Your task to perform on an android device: turn off smart reply in the gmail app Image 0: 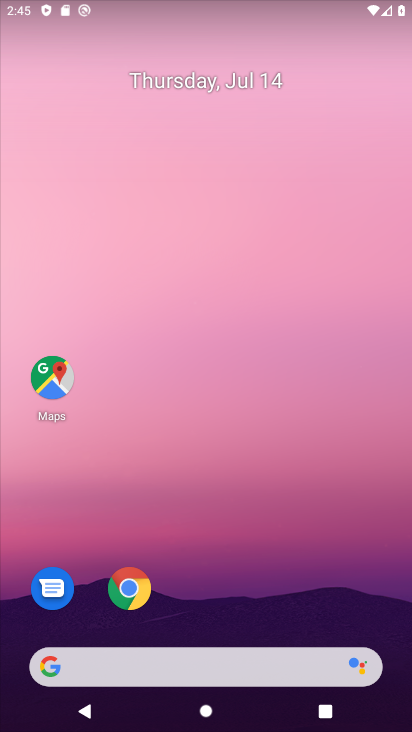
Step 0: drag from (247, 628) to (166, 117)
Your task to perform on an android device: turn off smart reply in the gmail app Image 1: 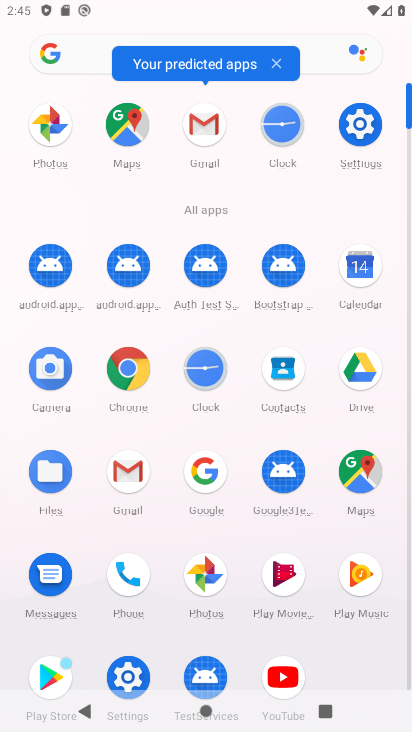
Step 1: click (203, 134)
Your task to perform on an android device: turn off smart reply in the gmail app Image 2: 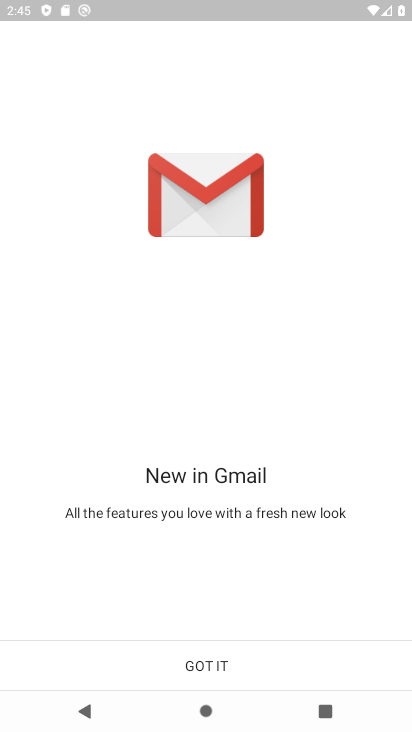
Step 2: click (226, 680)
Your task to perform on an android device: turn off smart reply in the gmail app Image 3: 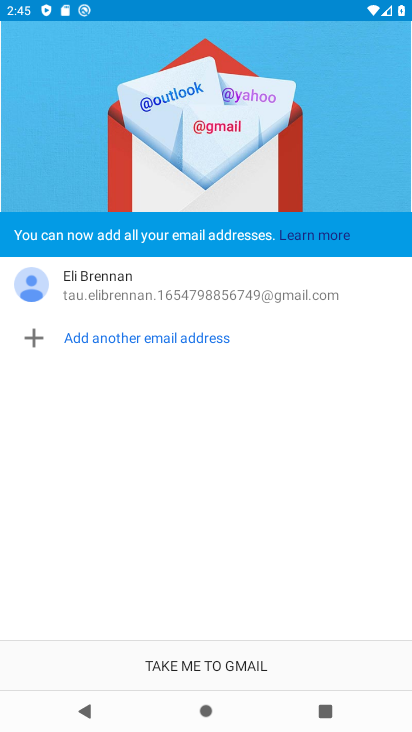
Step 3: click (225, 680)
Your task to perform on an android device: turn off smart reply in the gmail app Image 4: 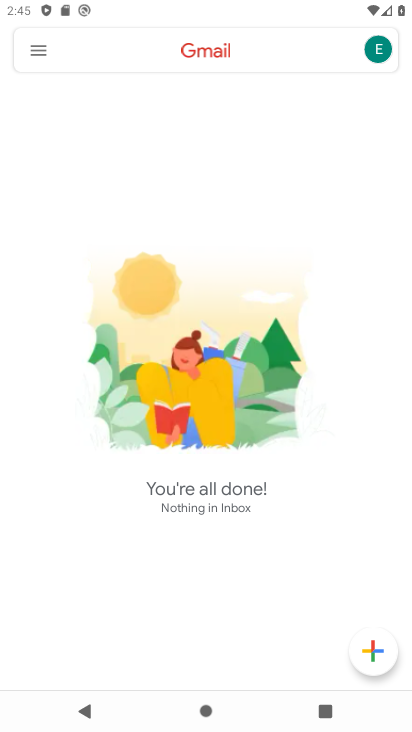
Step 4: click (39, 47)
Your task to perform on an android device: turn off smart reply in the gmail app Image 5: 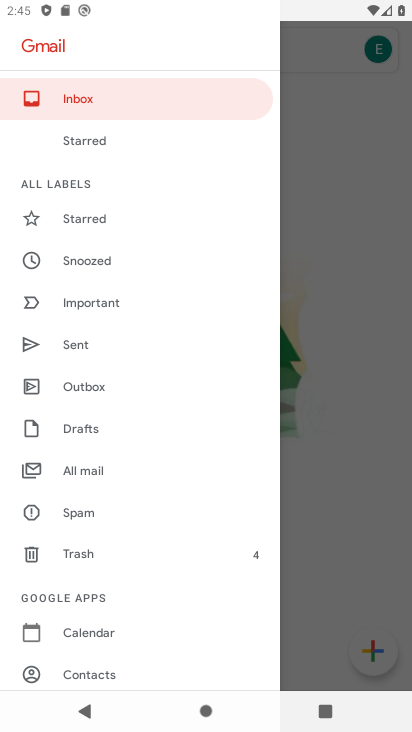
Step 5: drag from (177, 665) to (110, 138)
Your task to perform on an android device: turn off smart reply in the gmail app Image 6: 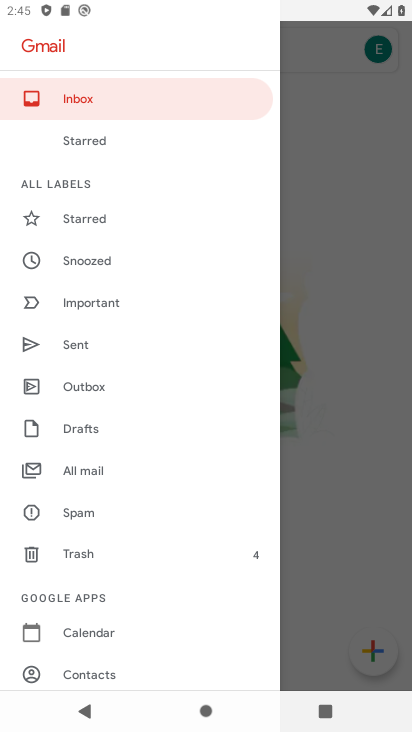
Step 6: drag from (108, 646) to (110, 276)
Your task to perform on an android device: turn off smart reply in the gmail app Image 7: 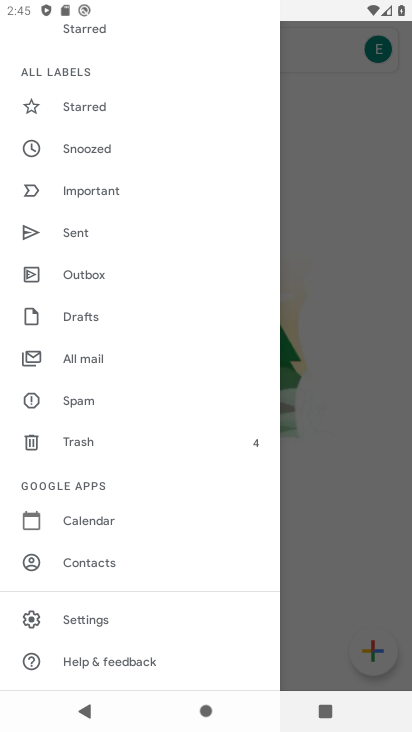
Step 7: click (116, 630)
Your task to perform on an android device: turn off smart reply in the gmail app Image 8: 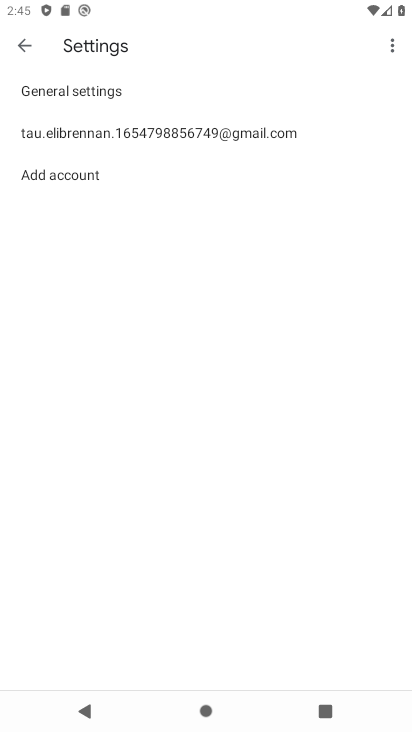
Step 8: click (244, 144)
Your task to perform on an android device: turn off smart reply in the gmail app Image 9: 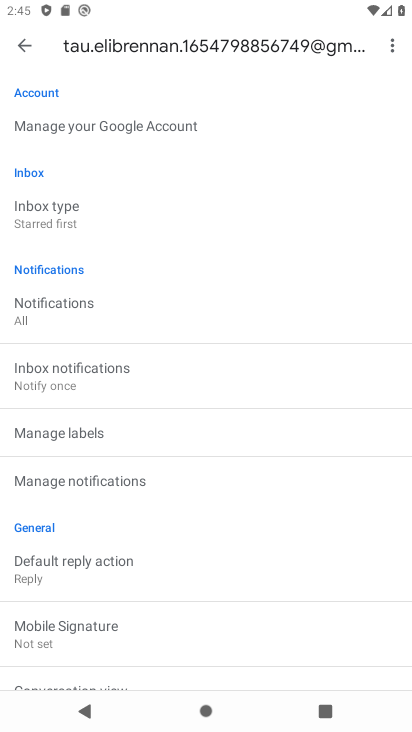
Step 9: drag from (161, 664) to (121, 168)
Your task to perform on an android device: turn off smart reply in the gmail app Image 10: 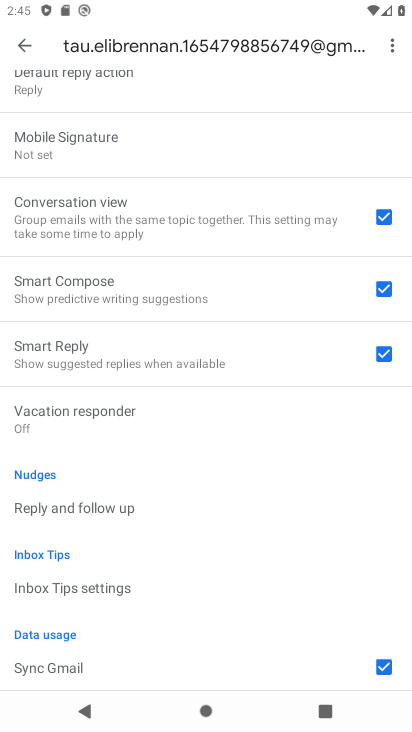
Step 10: click (393, 360)
Your task to perform on an android device: turn off smart reply in the gmail app Image 11: 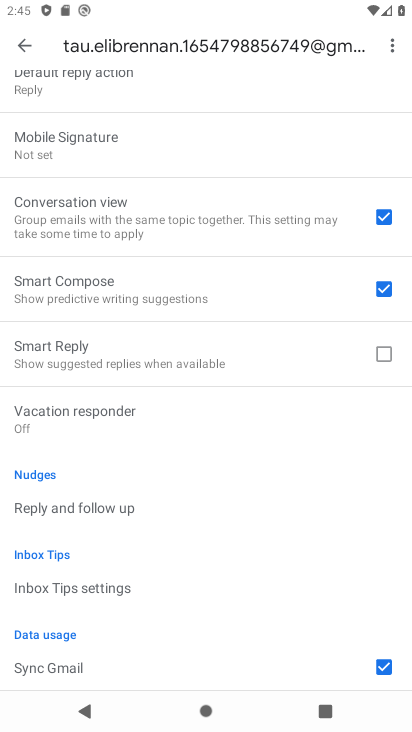
Step 11: task complete